Your task to perform on an android device: visit the assistant section in the google photos Image 0: 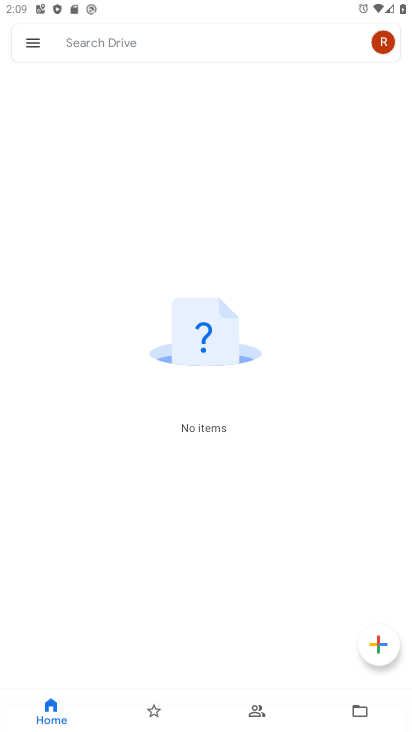
Step 0: press home button
Your task to perform on an android device: visit the assistant section in the google photos Image 1: 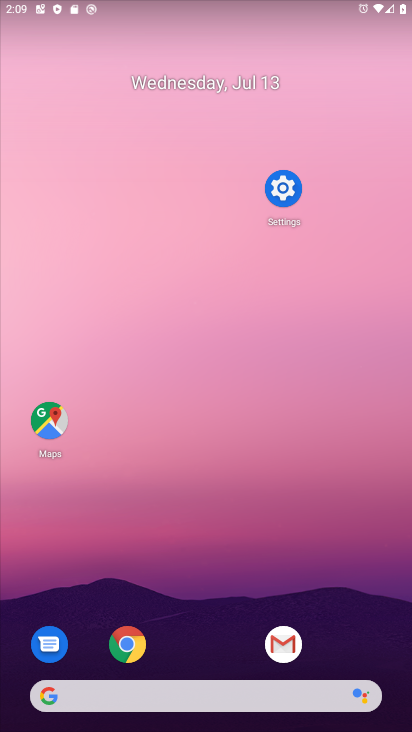
Step 1: drag from (215, 728) to (359, 184)
Your task to perform on an android device: visit the assistant section in the google photos Image 2: 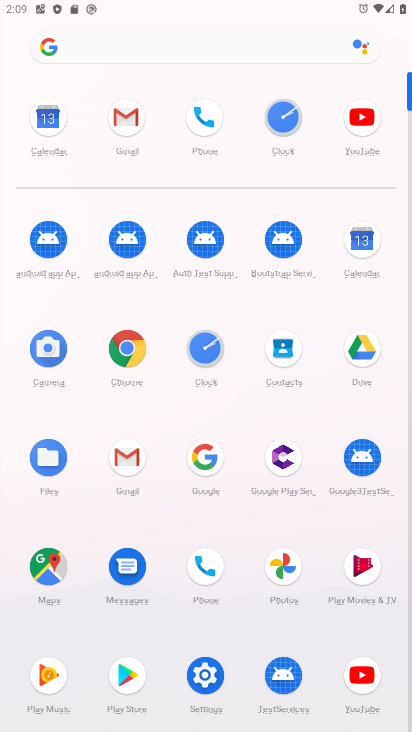
Step 2: click (287, 565)
Your task to perform on an android device: visit the assistant section in the google photos Image 3: 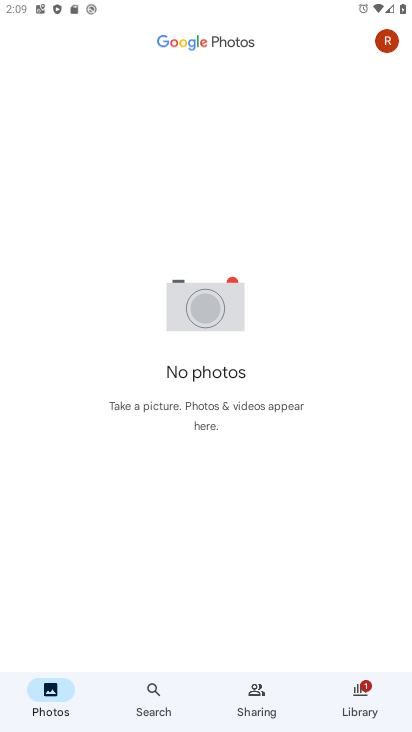
Step 3: click (378, 43)
Your task to perform on an android device: visit the assistant section in the google photos Image 4: 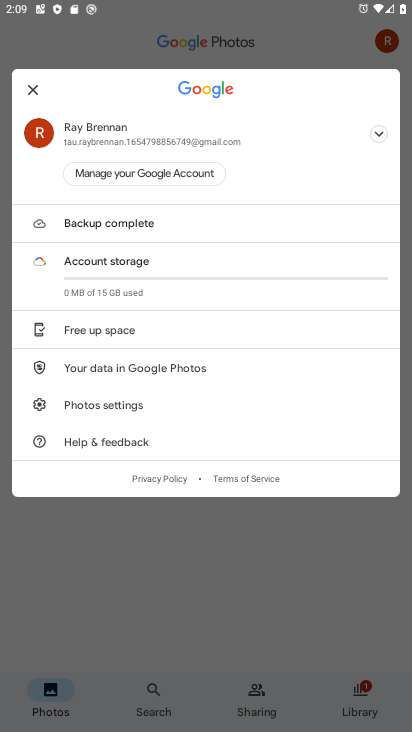
Step 4: click (126, 409)
Your task to perform on an android device: visit the assistant section in the google photos Image 5: 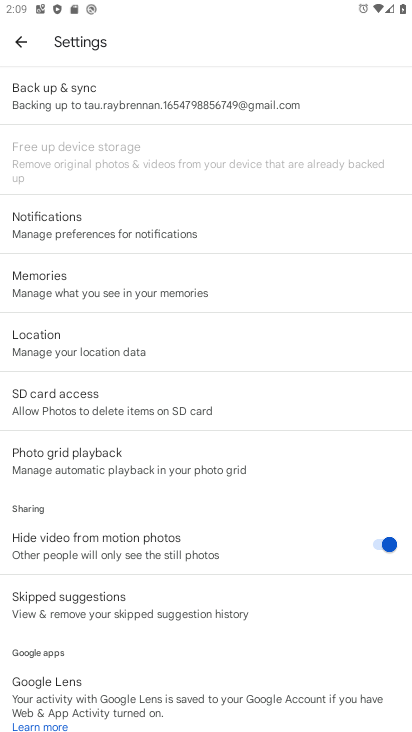
Step 5: task complete